Your task to perform on an android device: search for starred emails in the gmail app Image 0: 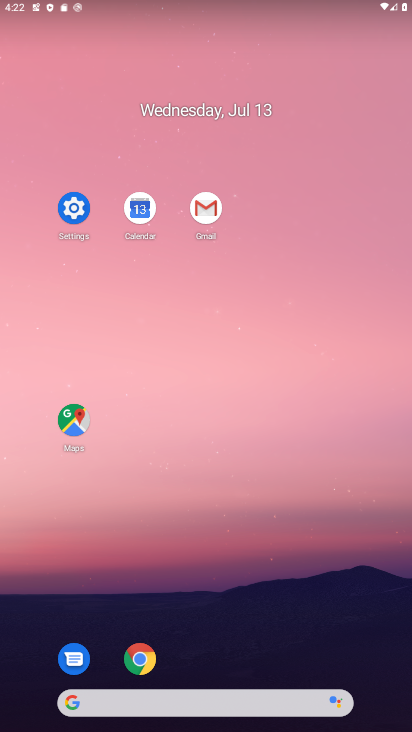
Step 0: click (203, 209)
Your task to perform on an android device: search for starred emails in the gmail app Image 1: 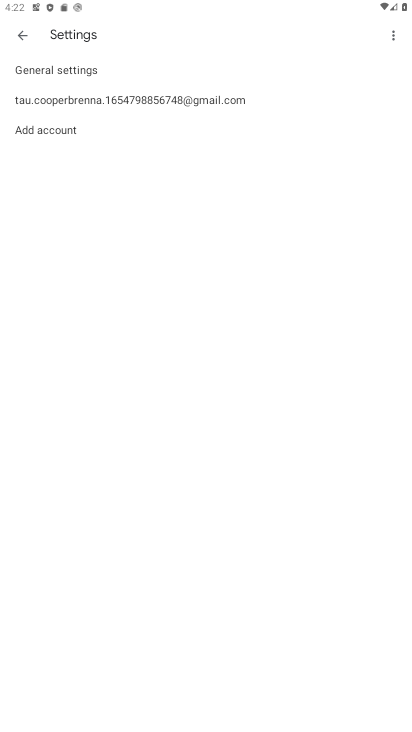
Step 1: click (20, 37)
Your task to perform on an android device: search for starred emails in the gmail app Image 2: 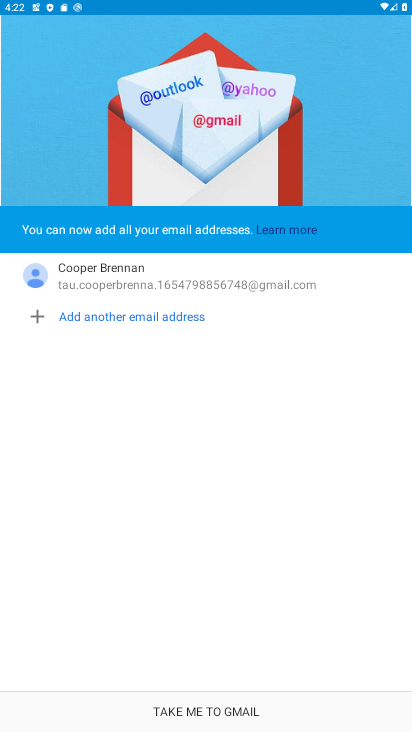
Step 2: click (197, 711)
Your task to perform on an android device: search for starred emails in the gmail app Image 3: 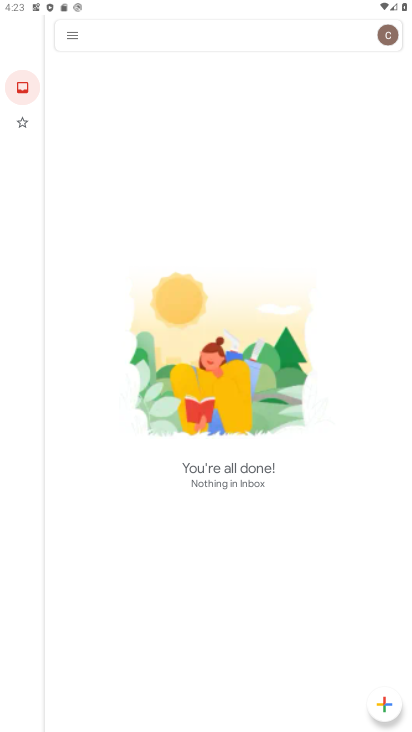
Step 3: click (66, 38)
Your task to perform on an android device: search for starred emails in the gmail app Image 4: 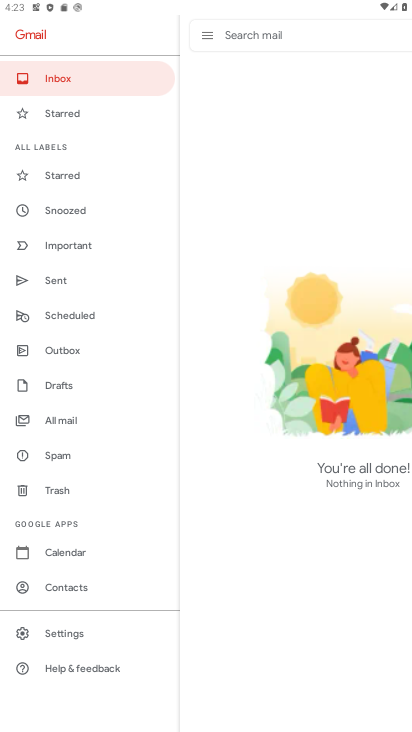
Step 4: click (58, 118)
Your task to perform on an android device: search for starred emails in the gmail app Image 5: 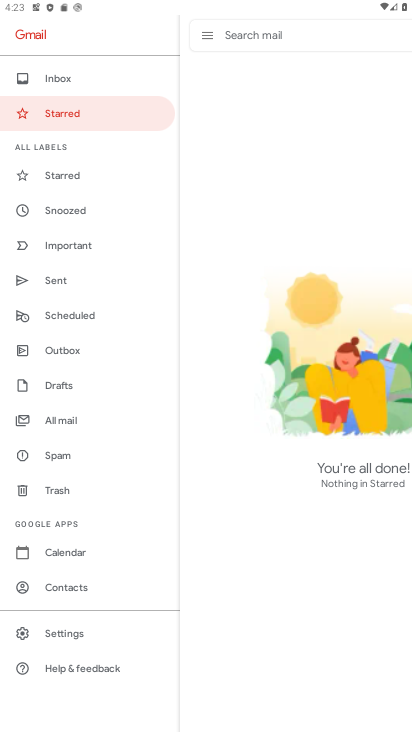
Step 5: task complete